Your task to perform on an android device: find which apps use the phone's location Image 0: 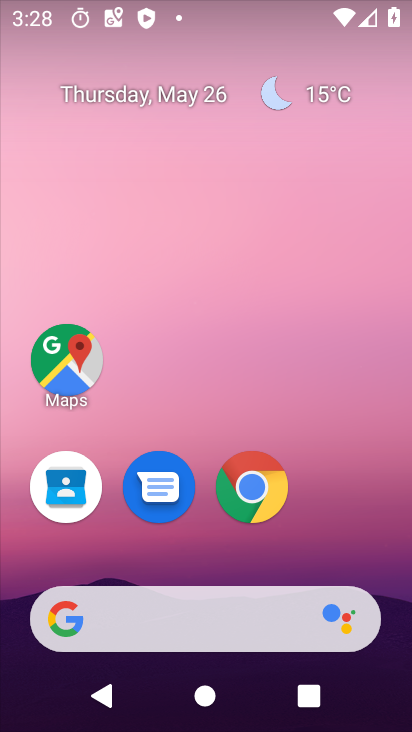
Step 0: drag from (197, 559) to (233, 155)
Your task to perform on an android device: find which apps use the phone's location Image 1: 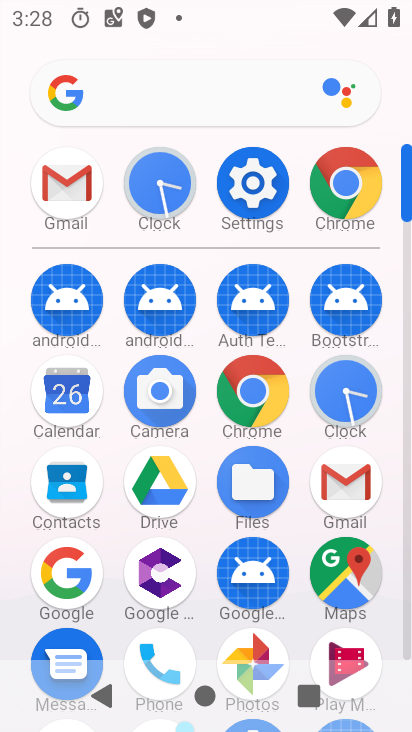
Step 1: click (260, 155)
Your task to perform on an android device: find which apps use the phone's location Image 2: 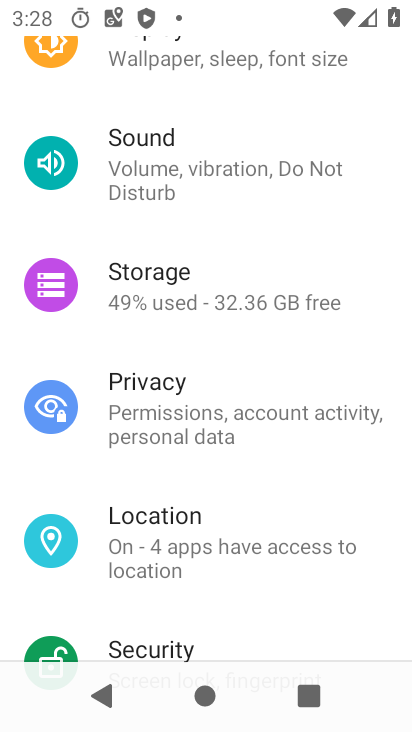
Step 2: drag from (189, 570) to (202, 469)
Your task to perform on an android device: find which apps use the phone's location Image 3: 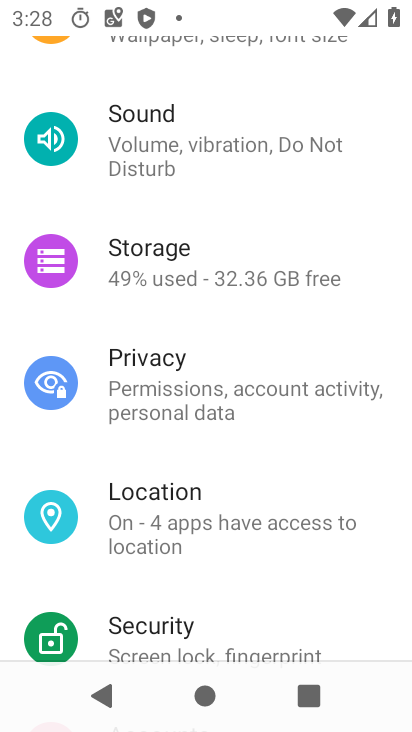
Step 3: click (189, 520)
Your task to perform on an android device: find which apps use the phone's location Image 4: 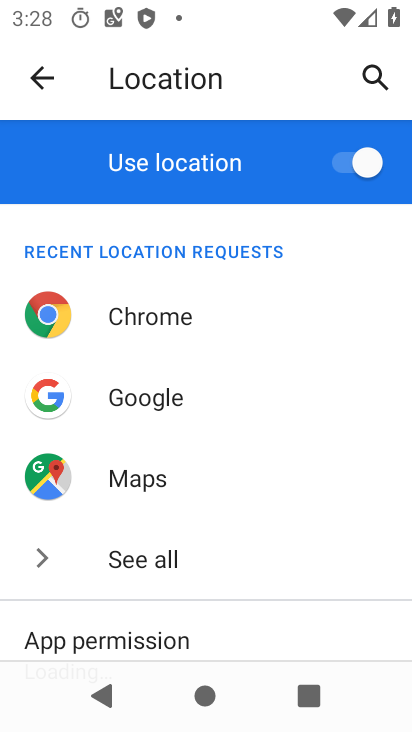
Step 4: click (187, 622)
Your task to perform on an android device: find which apps use the phone's location Image 5: 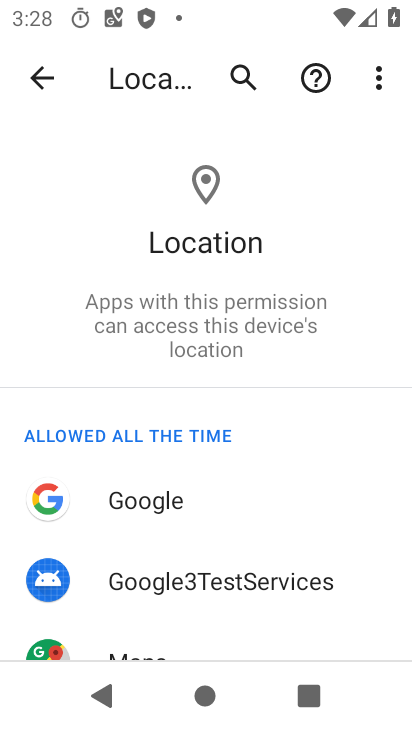
Step 5: task complete